Your task to perform on an android device: change the clock style Image 0: 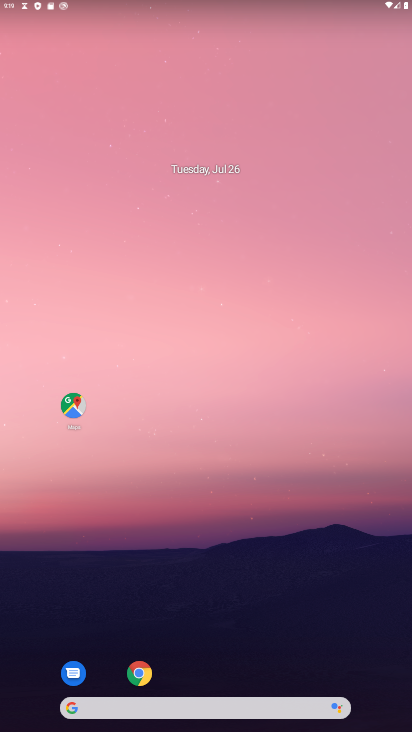
Step 0: drag from (197, 708) to (226, 7)
Your task to perform on an android device: change the clock style Image 1: 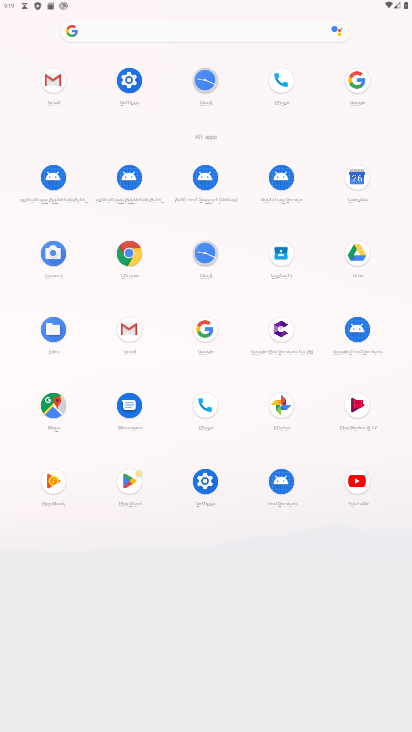
Step 1: click (205, 79)
Your task to perform on an android device: change the clock style Image 2: 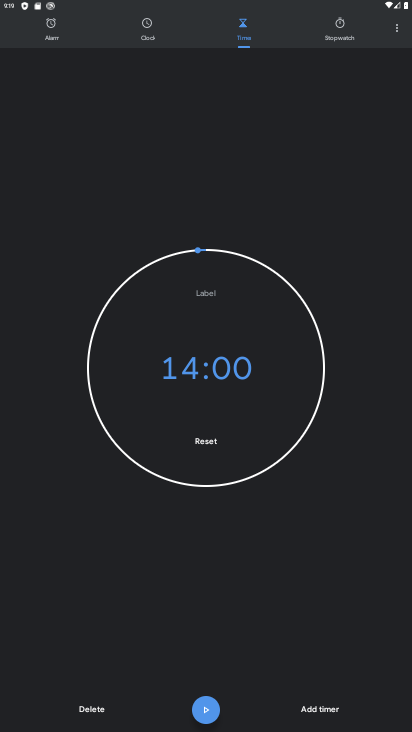
Step 2: click (398, 30)
Your task to perform on an android device: change the clock style Image 3: 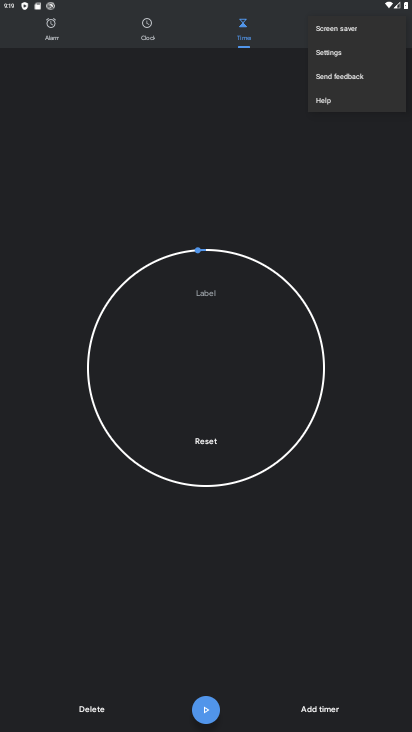
Step 3: click (328, 53)
Your task to perform on an android device: change the clock style Image 4: 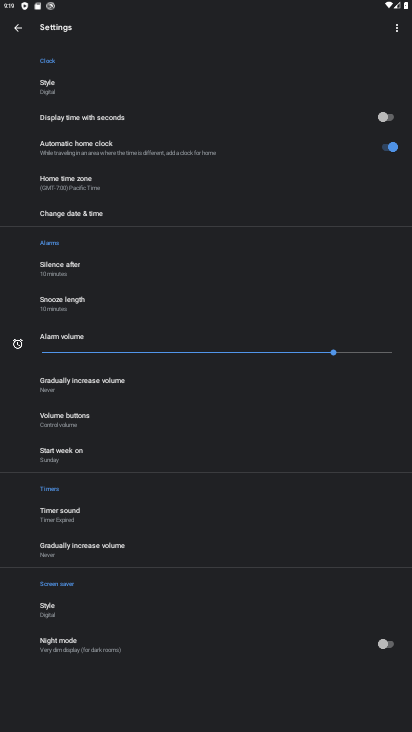
Step 4: click (63, 84)
Your task to perform on an android device: change the clock style Image 5: 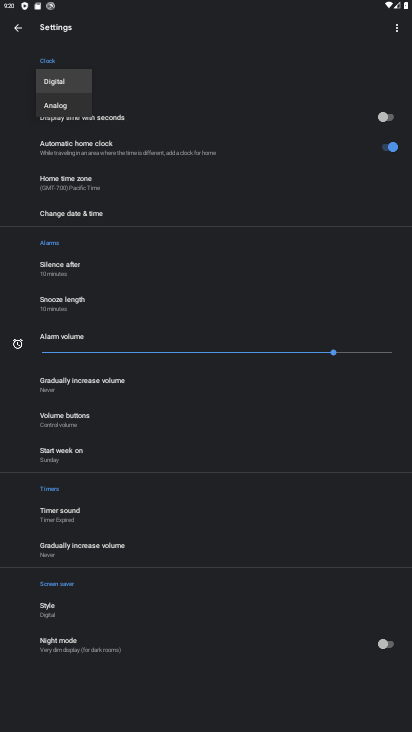
Step 5: click (66, 107)
Your task to perform on an android device: change the clock style Image 6: 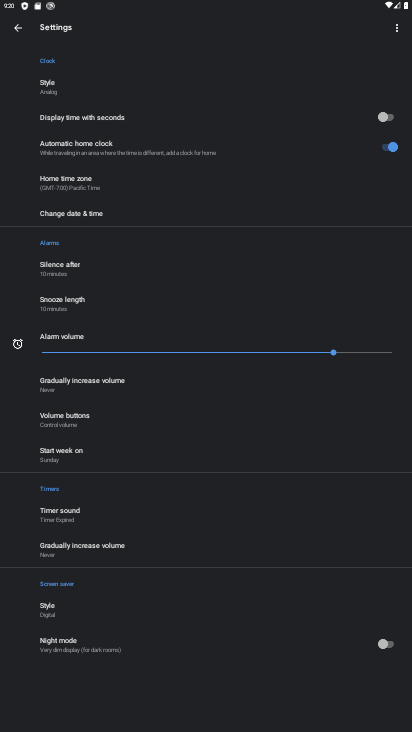
Step 6: task complete